Your task to perform on an android device: Open my contact list Image 0: 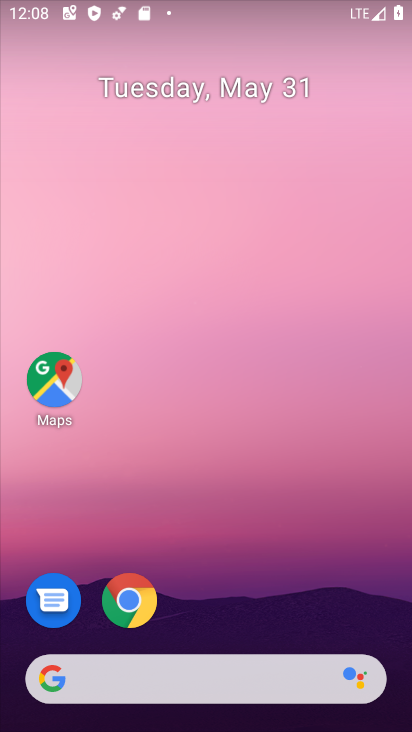
Step 0: drag from (219, 720) to (211, 95)
Your task to perform on an android device: Open my contact list Image 1: 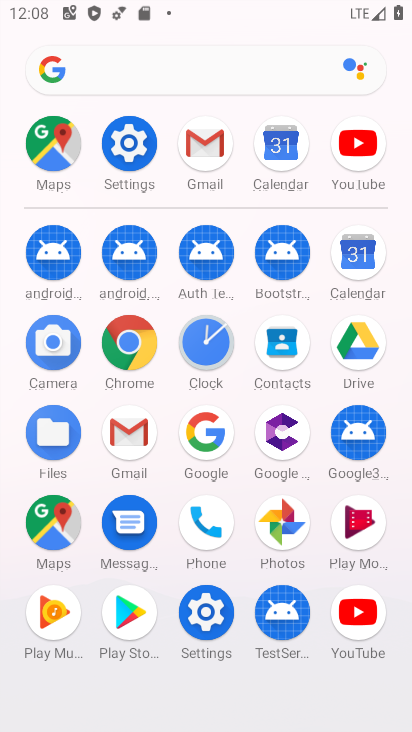
Step 1: click (279, 350)
Your task to perform on an android device: Open my contact list Image 2: 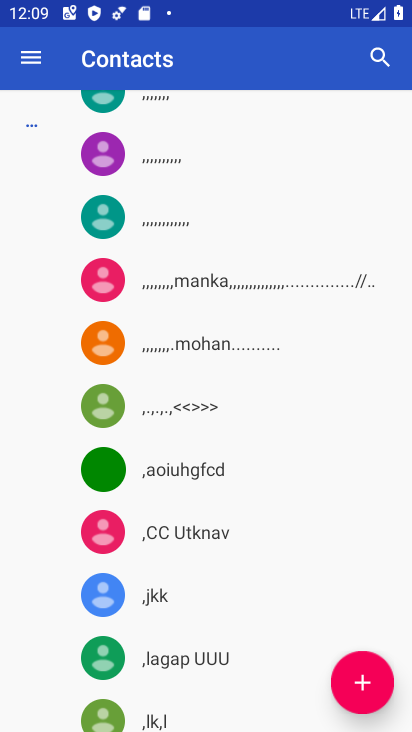
Step 2: task complete